Your task to perform on an android device: turn pop-ups off in chrome Image 0: 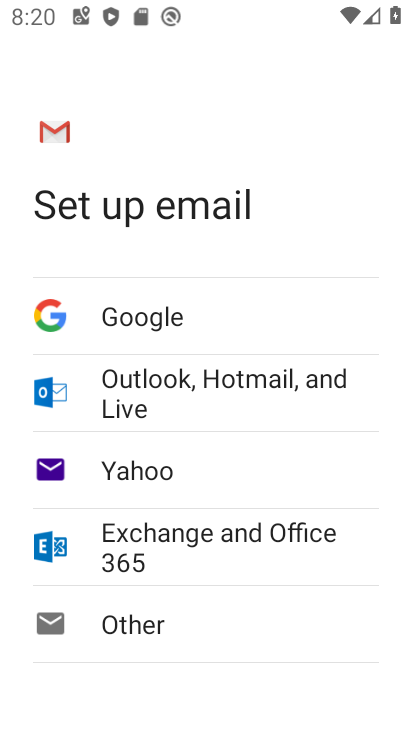
Step 0: press home button
Your task to perform on an android device: turn pop-ups off in chrome Image 1: 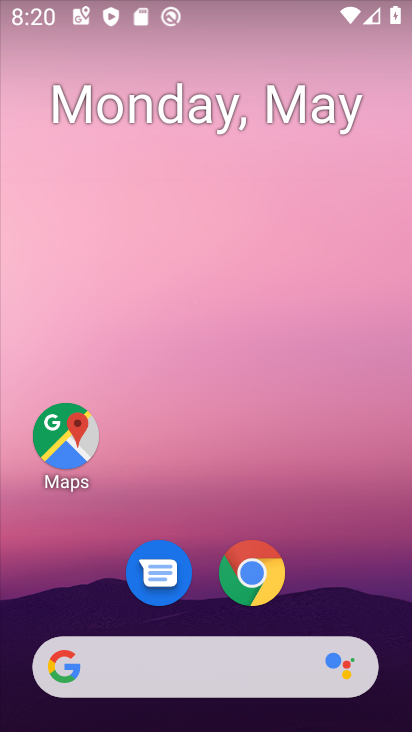
Step 1: click (272, 594)
Your task to perform on an android device: turn pop-ups off in chrome Image 2: 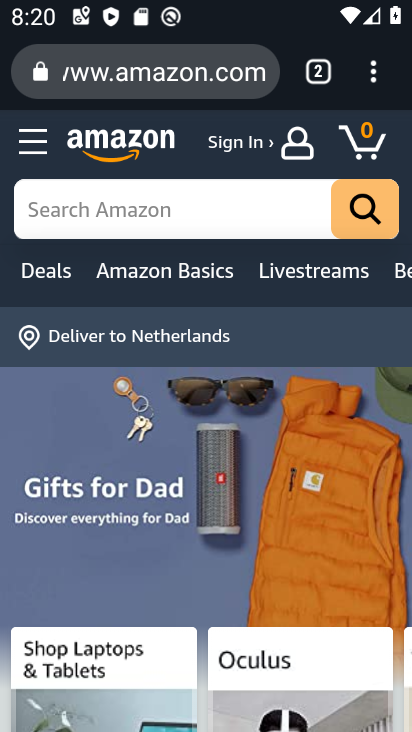
Step 2: click (381, 66)
Your task to perform on an android device: turn pop-ups off in chrome Image 3: 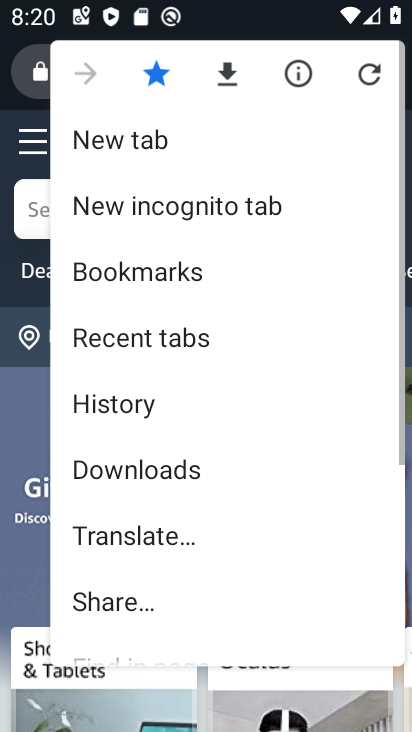
Step 3: drag from (147, 630) to (197, 332)
Your task to perform on an android device: turn pop-ups off in chrome Image 4: 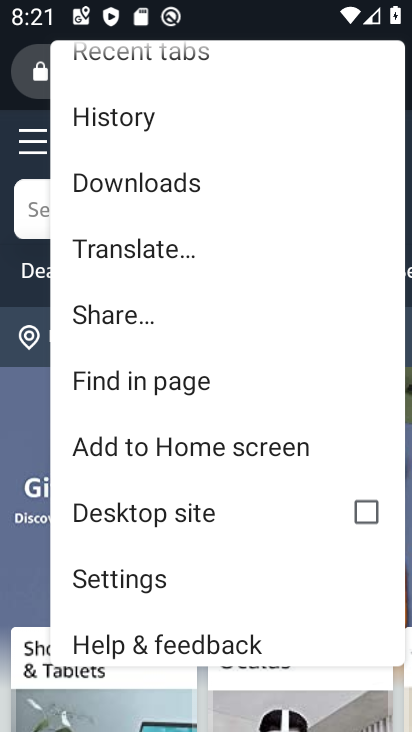
Step 4: click (209, 582)
Your task to perform on an android device: turn pop-ups off in chrome Image 5: 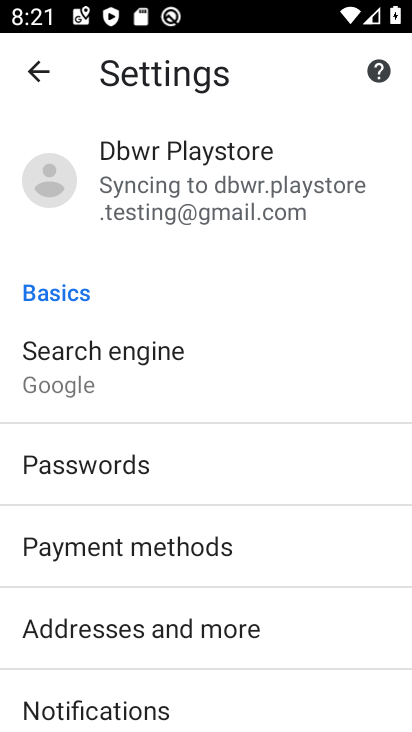
Step 5: drag from (209, 582) to (265, 323)
Your task to perform on an android device: turn pop-ups off in chrome Image 6: 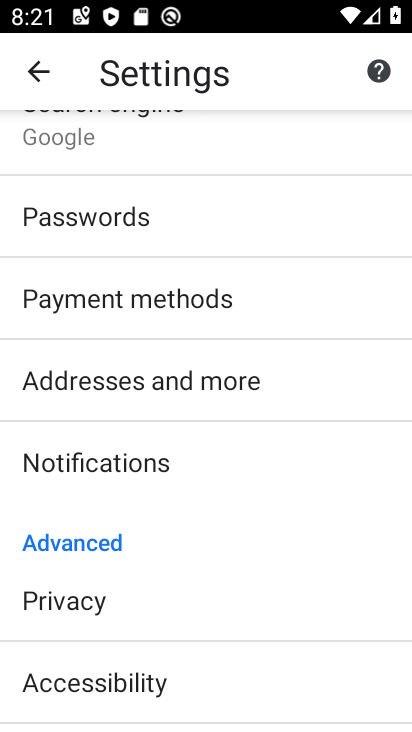
Step 6: drag from (195, 693) to (257, 418)
Your task to perform on an android device: turn pop-ups off in chrome Image 7: 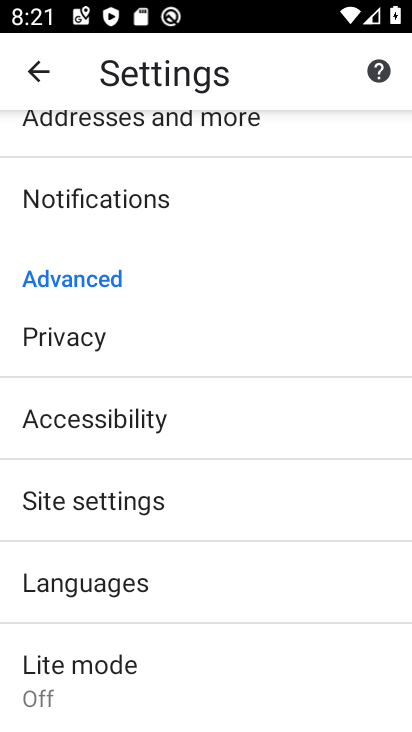
Step 7: drag from (186, 661) to (176, 563)
Your task to perform on an android device: turn pop-ups off in chrome Image 8: 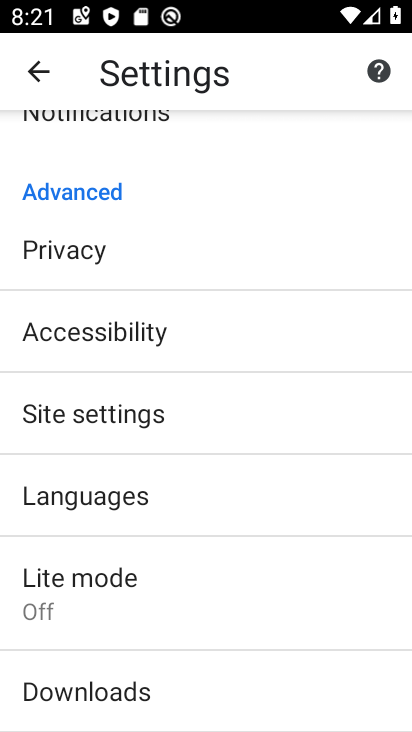
Step 8: click (188, 401)
Your task to perform on an android device: turn pop-ups off in chrome Image 9: 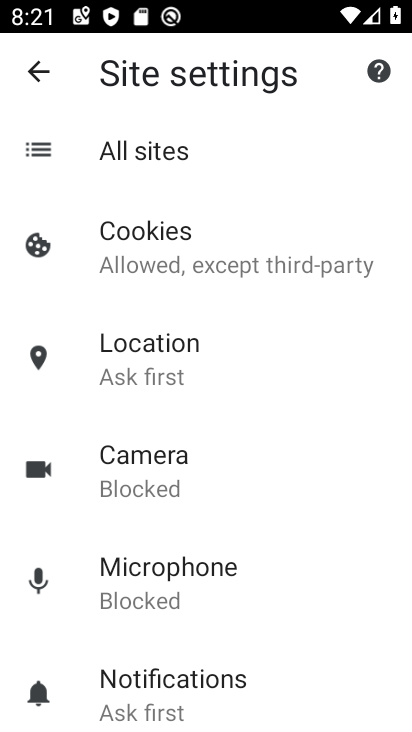
Step 9: click (221, 450)
Your task to perform on an android device: turn pop-ups off in chrome Image 10: 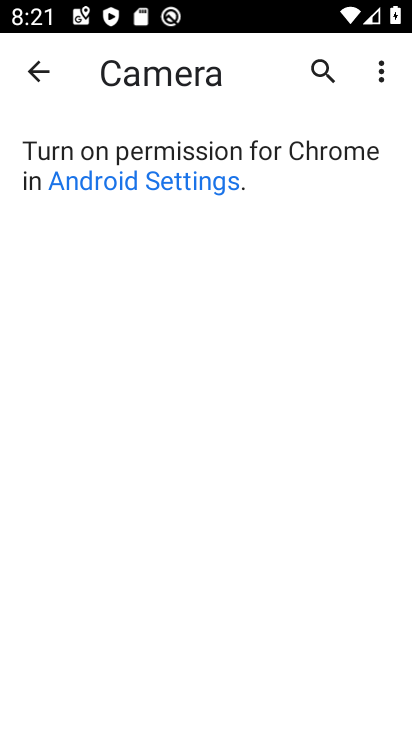
Step 10: task complete